Your task to perform on an android device: Open Google Chrome and open the bookmarks view Image 0: 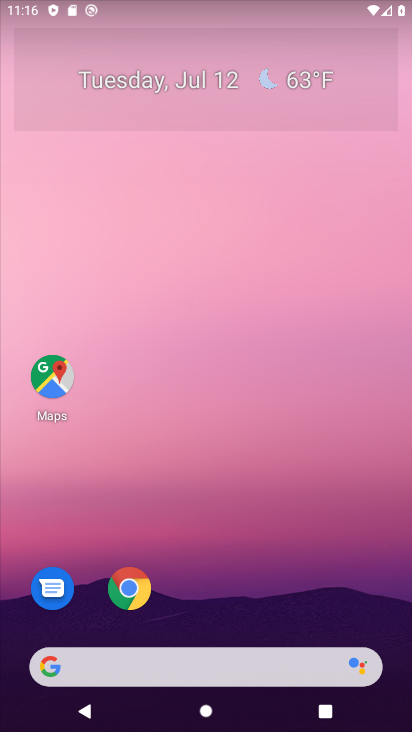
Step 0: click (130, 588)
Your task to perform on an android device: Open Google Chrome and open the bookmarks view Image 1: 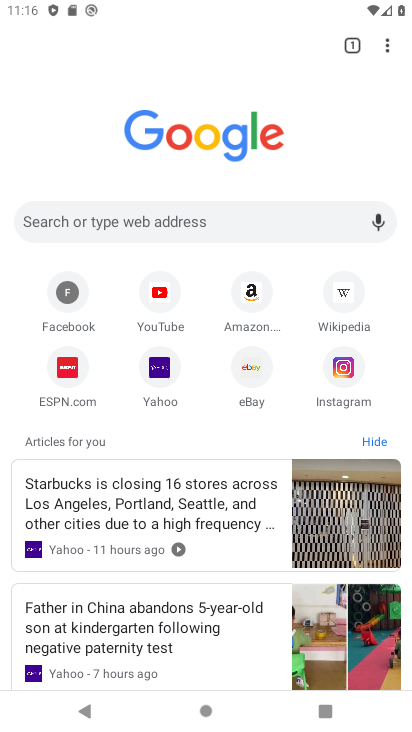
Step 1: click (389, 44)
Your task to perform on an android device: Open Google Chrome and open the bookmarks view Image 2: 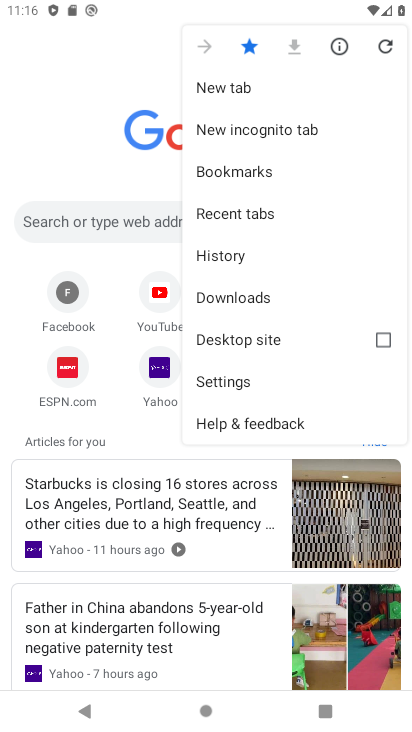
Step 2: click (245, 171)
Your task to perform on an android device: Open Google Chrome and open the bookmarks view Image 3: 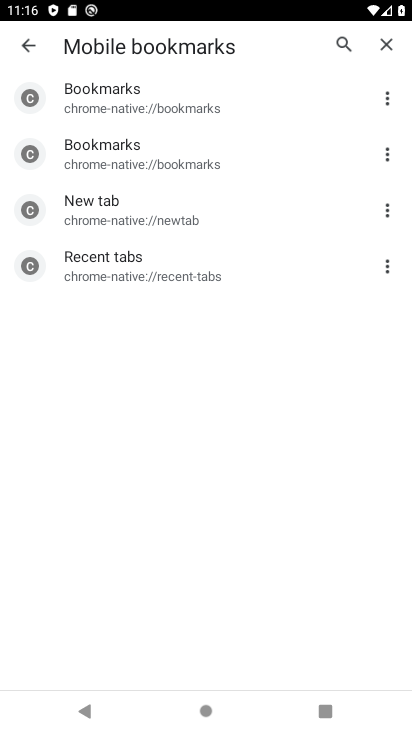
Step 3: task complete